Your task to perform on an android device: delete the emails in spam in the gmail app Image 0: 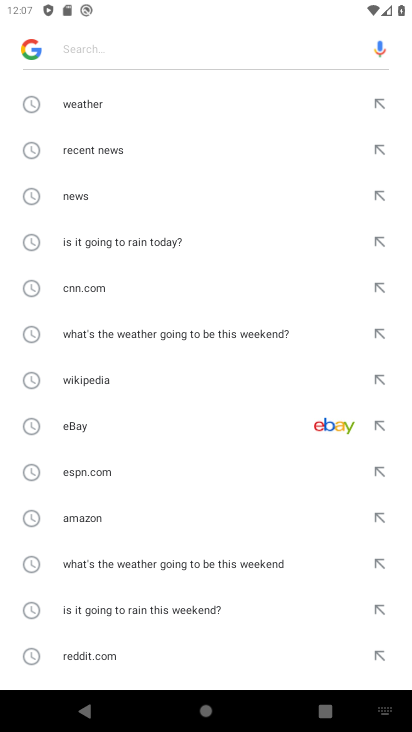
Step 0: press home button
Your task to perform on an android device: delete the emails in spam in the gmail app Image 1: 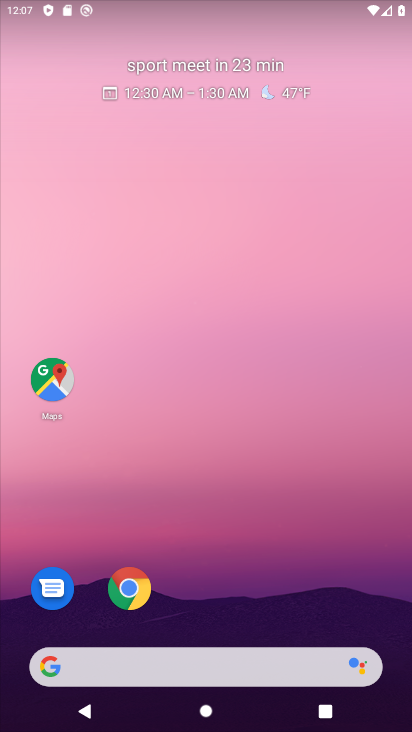
Step 1: drag from (180, 553) to (226, 32)
Your task to perform on an android device: delete the emails in spam in the gmail app Image 2: 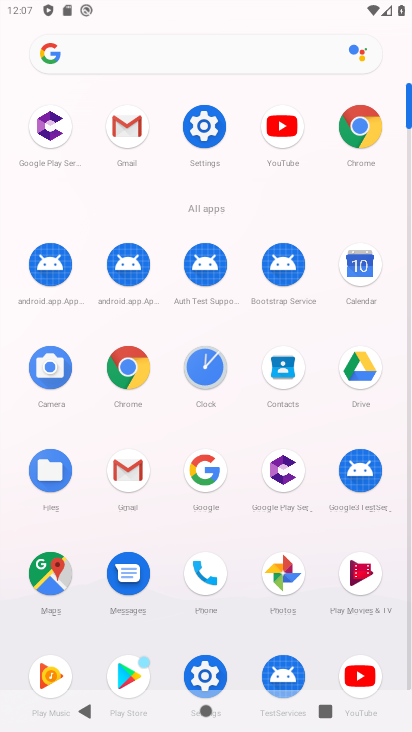
Step 2: click (124, 123)
Your task to perform on an android device: delete the emails in spam in the gmail app Image 3: 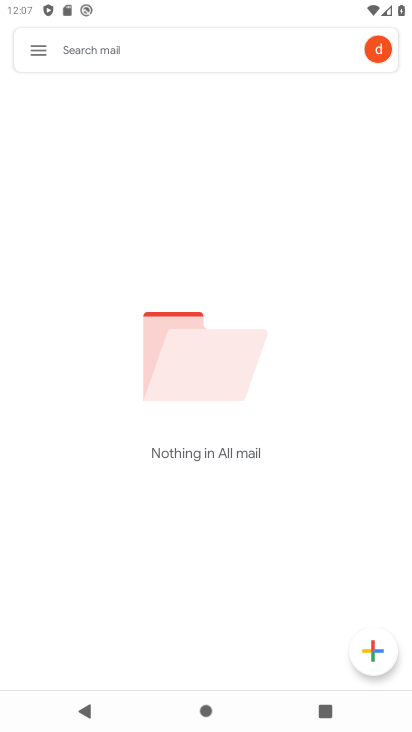
Step 3: click (40, 53)
Your task to perform on an android device: delete the emails in spam in the gmail app Image 4: 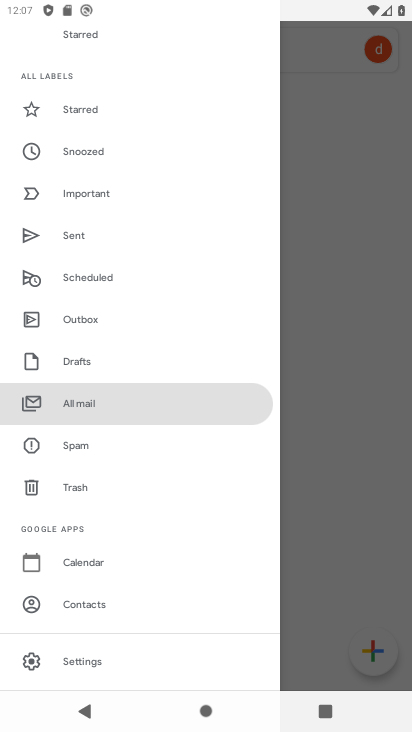
Step 4: click (74, 444)
Your task to perform on an android device: delete the emails in spam in the gmail app Image 5: 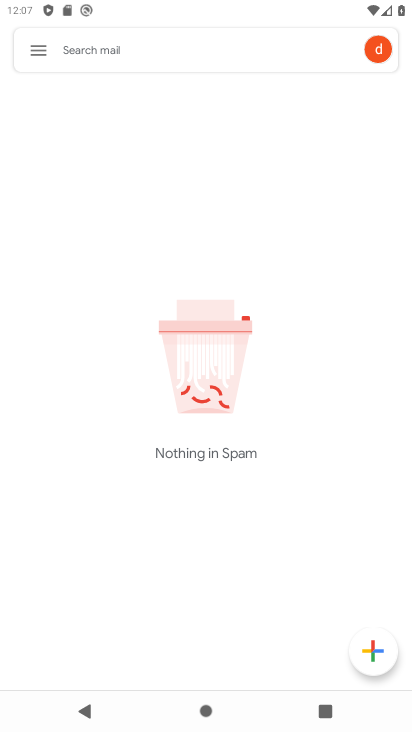
Step 5: task complete